Your task to perform on an android device: turn on airplane mode Image 0: 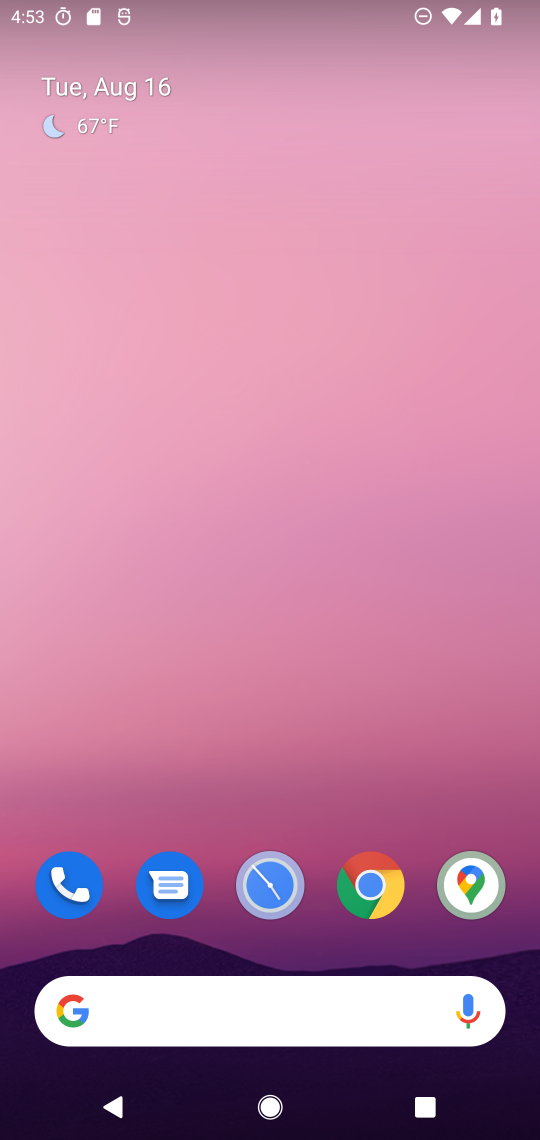
Step 0: drag from (266, 0) to (242, 748)
Your task to perform on an android device: turn on airplane mode Image 1: 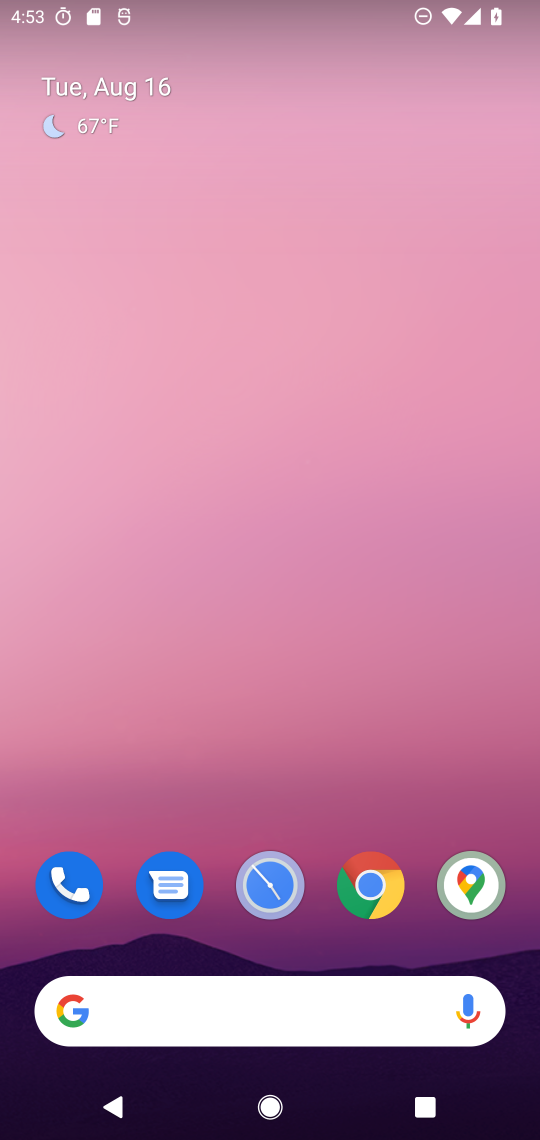
Step 1: drag from (164, 1052) to (192, 200)
Your task to perform on an android device: turn on airplane mode Image 2: 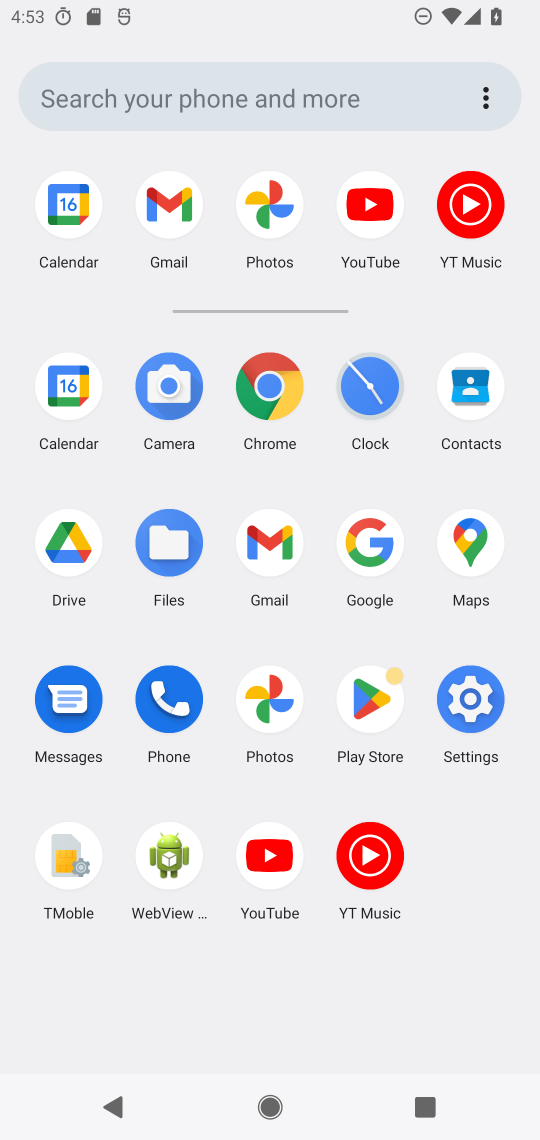
Step 2: click (450, 691)
Your task to perform on an android device: turn on airplane mode Image 3: 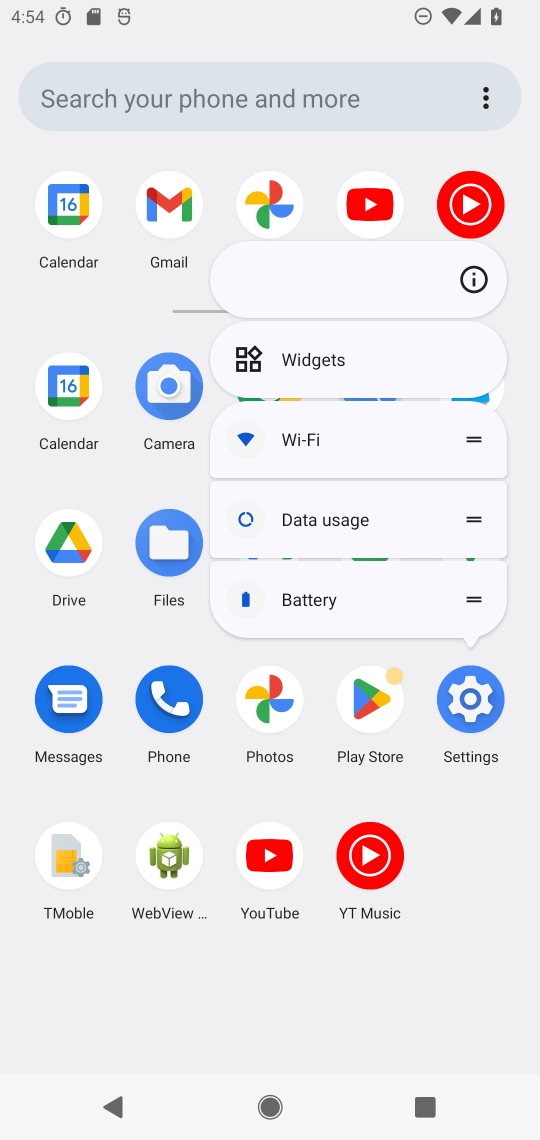
Step 3: click (455, 683)
Your task to perform on an android device: turn on airplane mode Image 4: 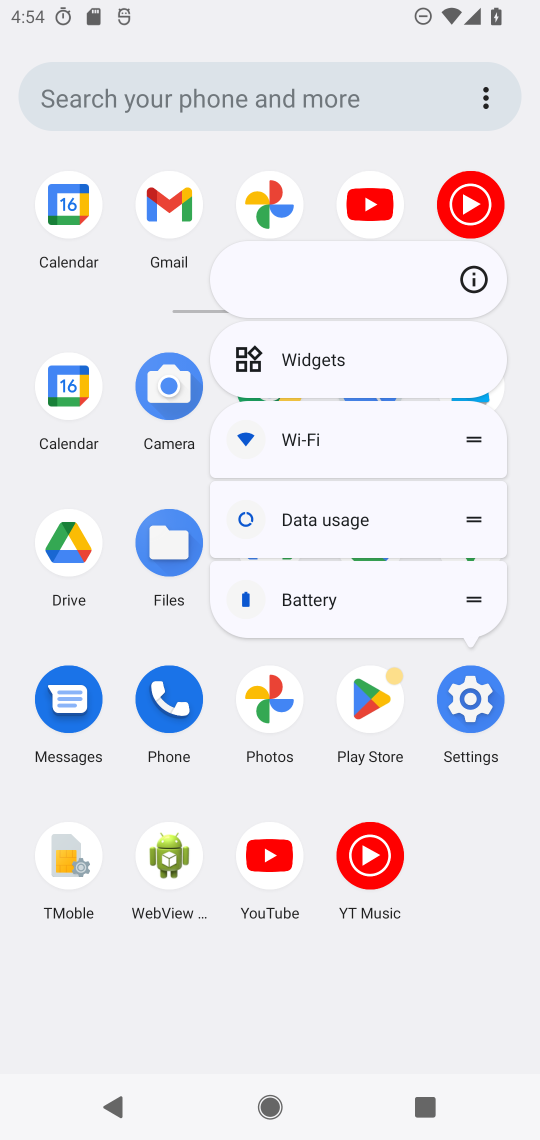
Step 4: click (483, 683)
Your task to perform on an android device: turn on airplane mode Image 5: 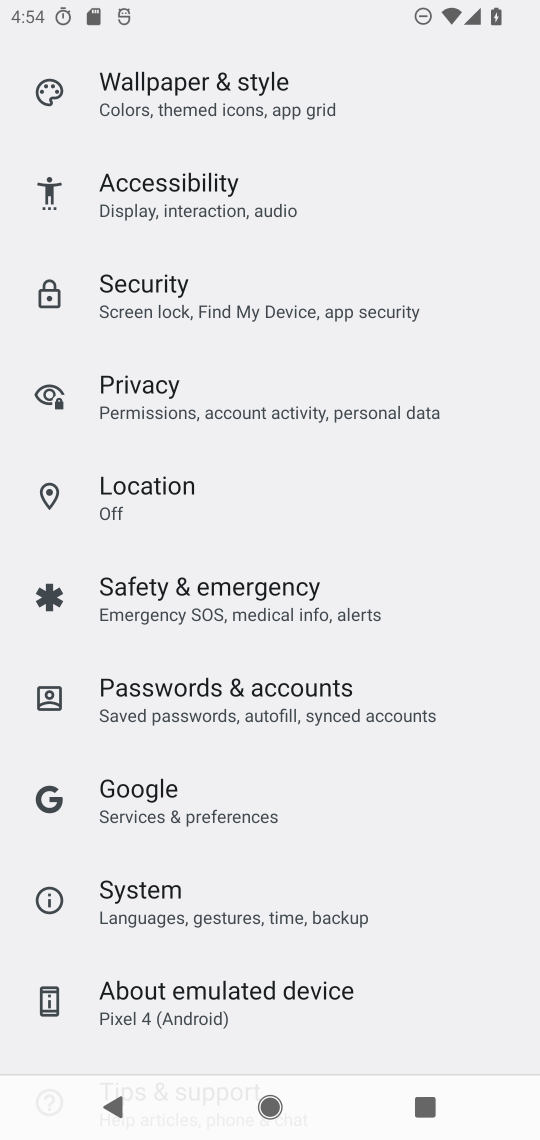
Step 5: drag from (254, 157) to (254, 930)
Your task to perform on an android device: turn on airplane mode Image 6: 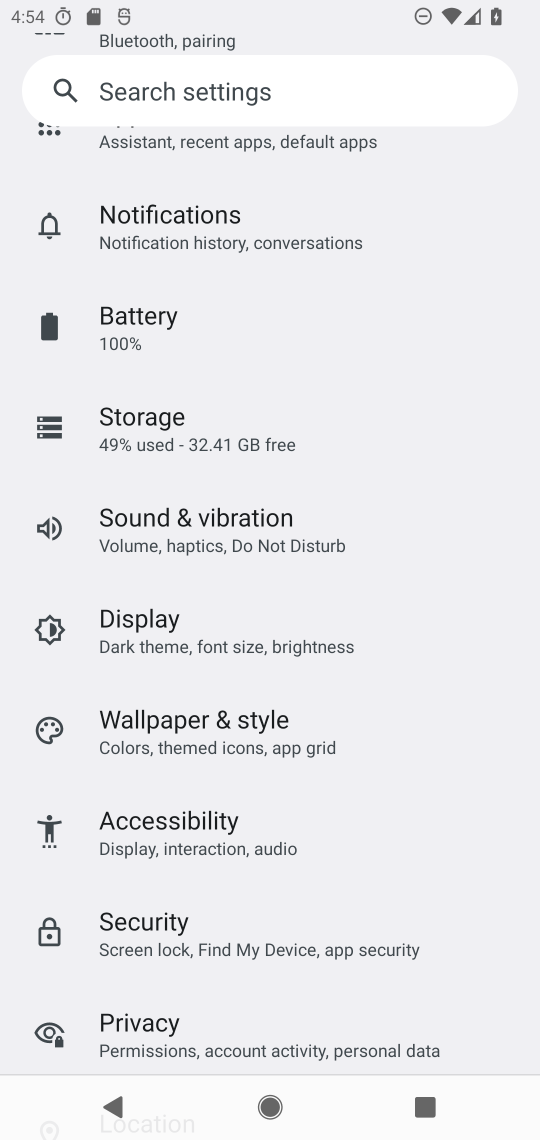
Step 6: drag from (66, 232) to (146, 1139)
Your task to perform on an android device: turn on airplane mode Image 7: 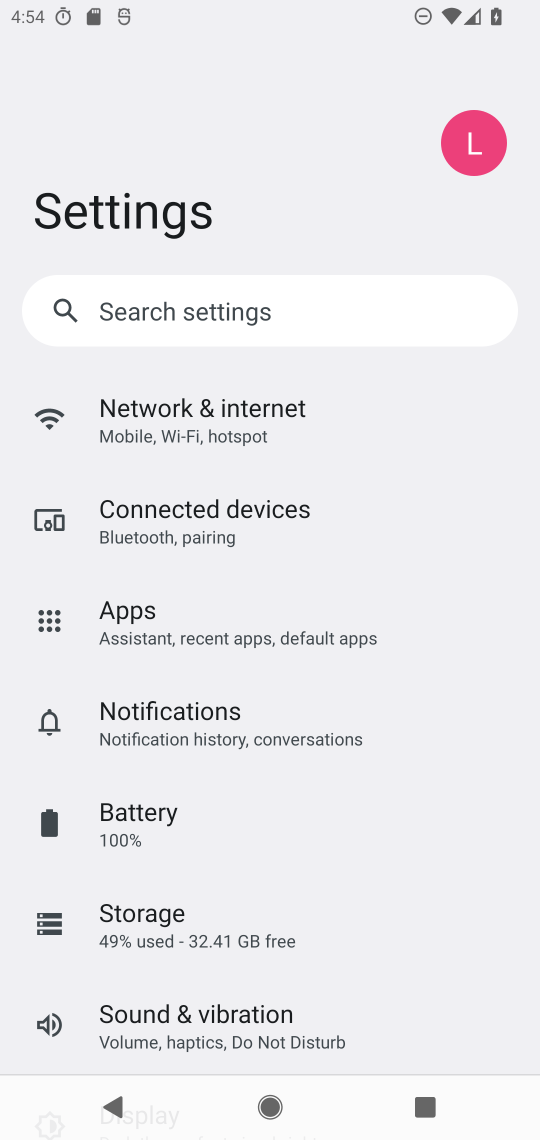
Step 7: click (326, 390)
Your task to perform on an android device: turn on airplane mode Image 8: 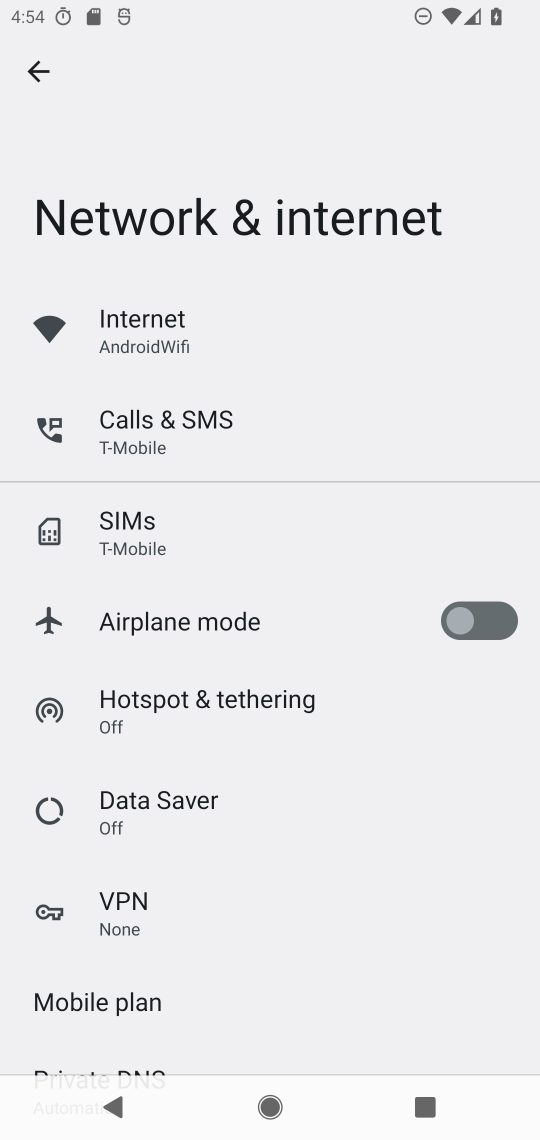
Step 8: click (490, 626)
Your task to perform on an android device: turn on airplane mode Image 9: 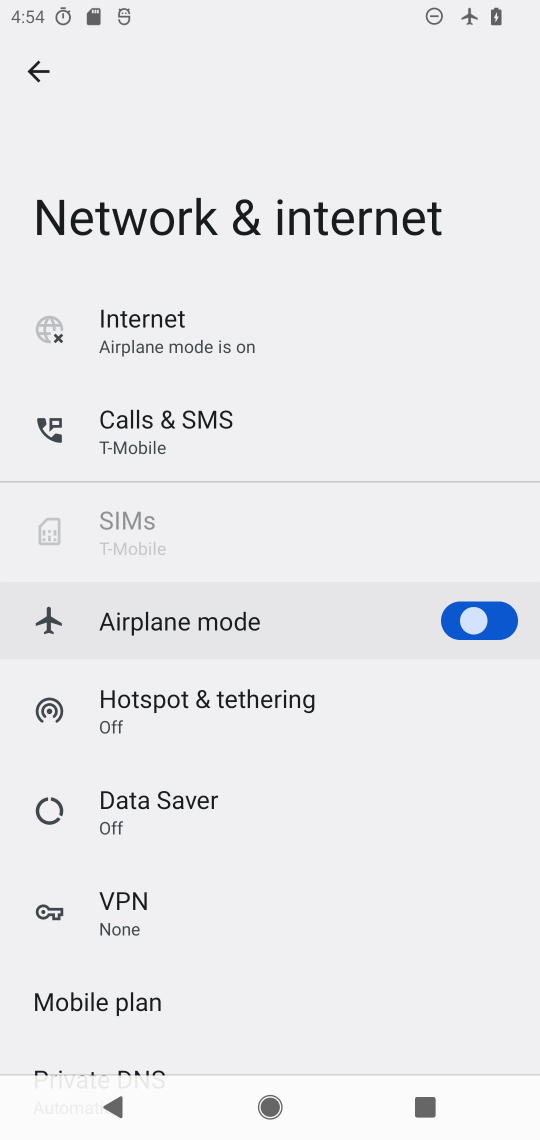
Step 9: task complete